Your task to perform on an android device: Open Wikipedia Image 0: 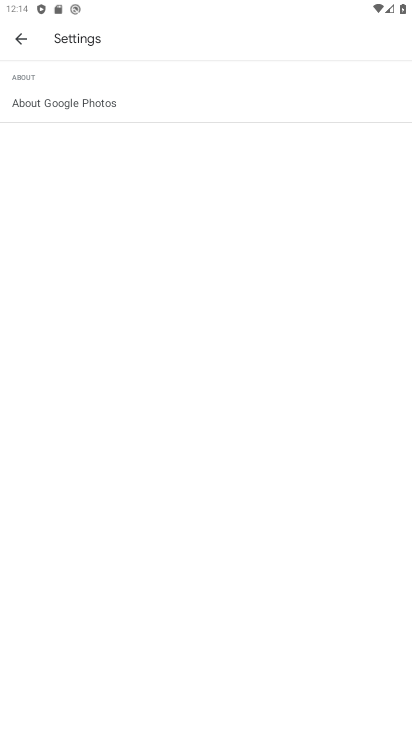
Step 0: press home button
Your task to perform on an android device: Open Wikipedia Image 1: 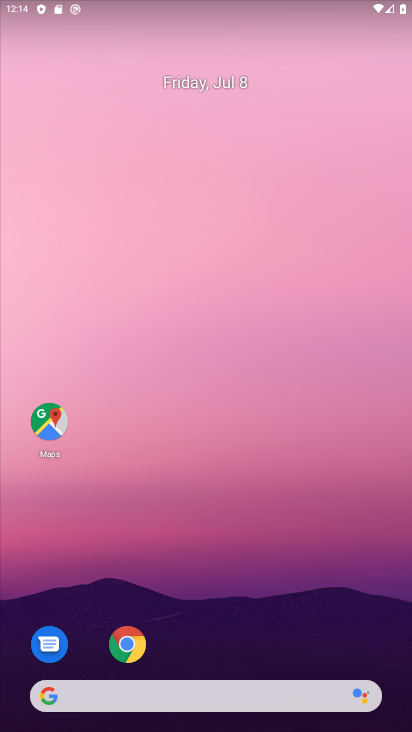
Step 1: click (118, 650)
Your task to perform on an android device: Open Wikipedia Image 2: 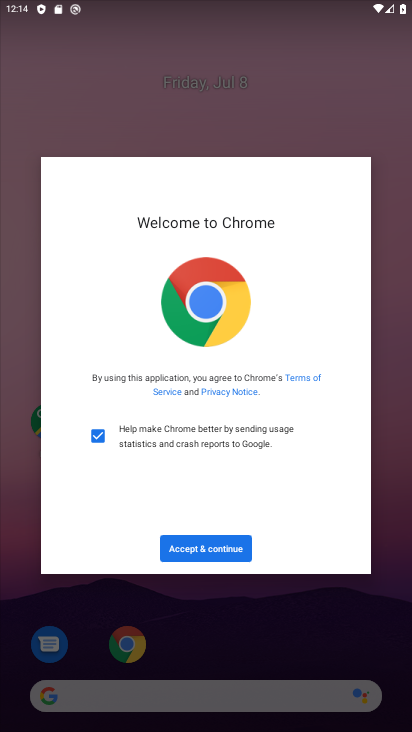
Step 2: click (216, 544)
Your task to perform on an android device: Open Wikipedia Image 3: 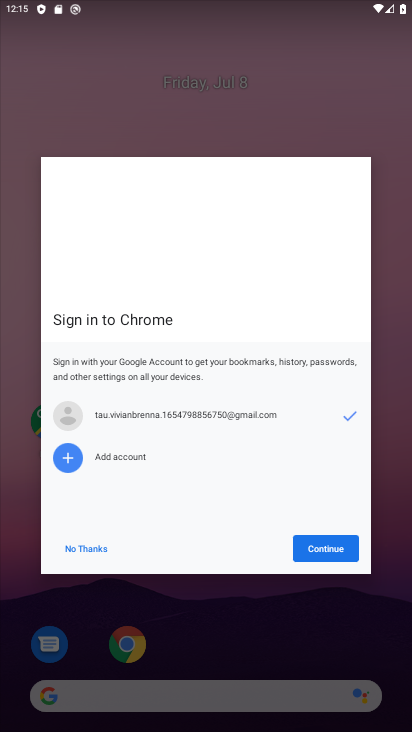
Step 3: click (332, 554)
Your task to perform on an android device: Open Wikipedia Image 4: 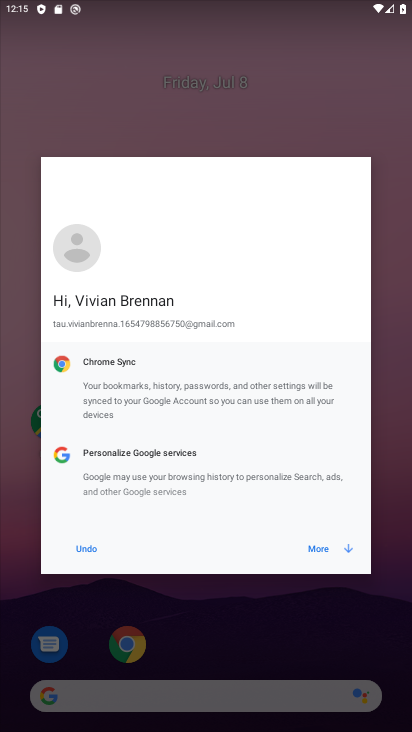
Step 4: click (315, 544)
Your task to perform on an android device: Open Wikipedia Image 5: 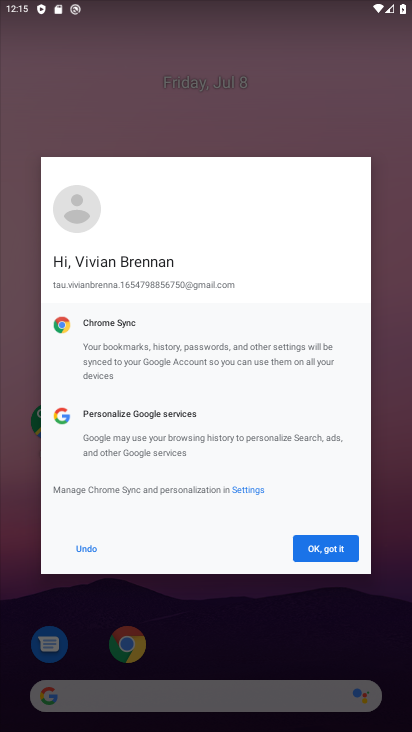
Step 5: click (324, 543)
Your task to perform on an android device: Open Wikipedia Image 6: 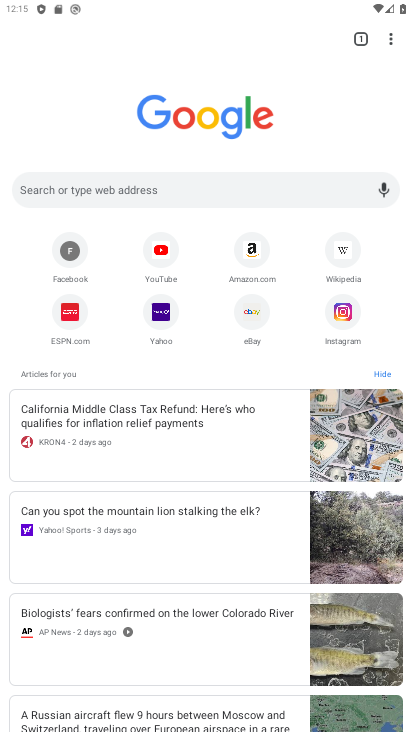
Step 6: click (332, 252)
Your task to perform on an android device: Open Wikipedia Image 7: 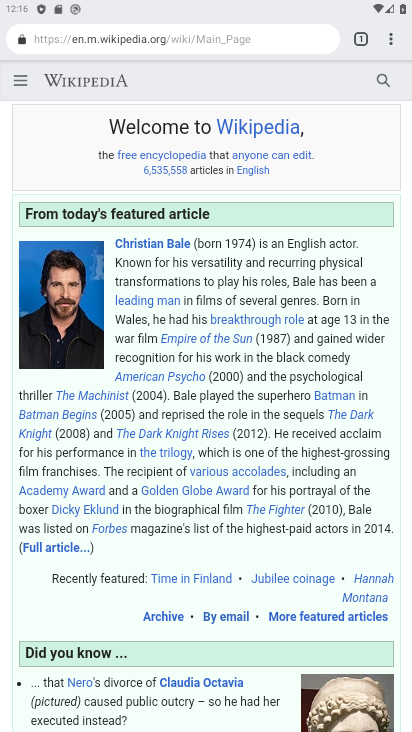
Step 7: task complete